Your task to perform on an android device: Open Chrome and go to settings Image 0: 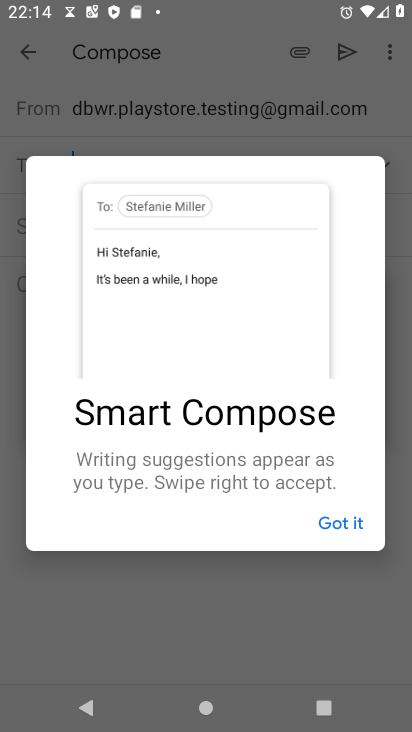
Step 0: press home button
Your task to perform on an android device: Open Chrome and go to settings Image 1: 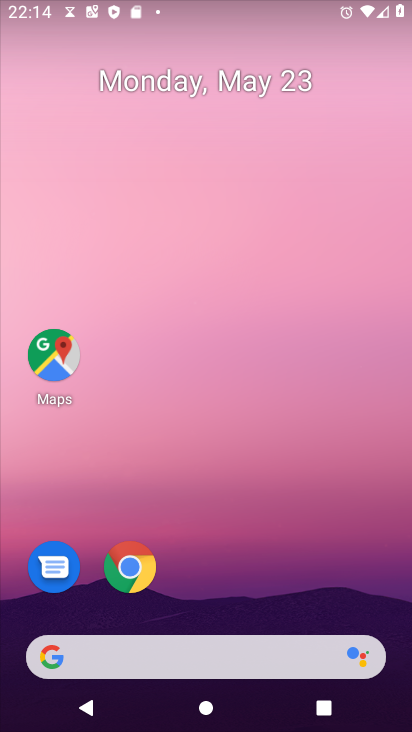
Step 1: drag from (238, 558) to (248, 225)
Your task to perform on an android device: Open Chrome and go to settings Image 2: 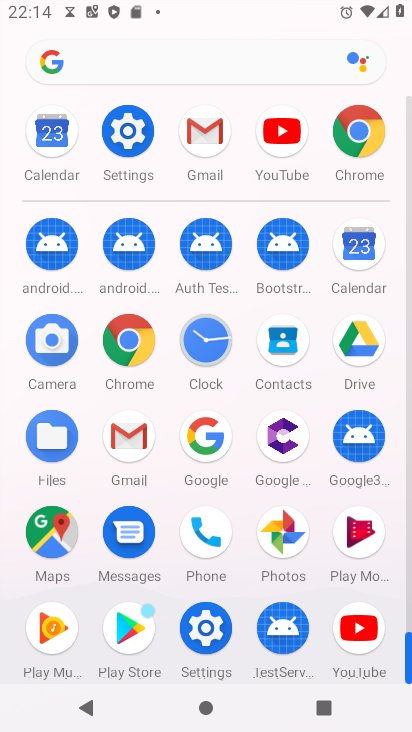
Step 2: click (348, 125)
Your task to perform on an android device: Open Chrome and go to settings Image 3: 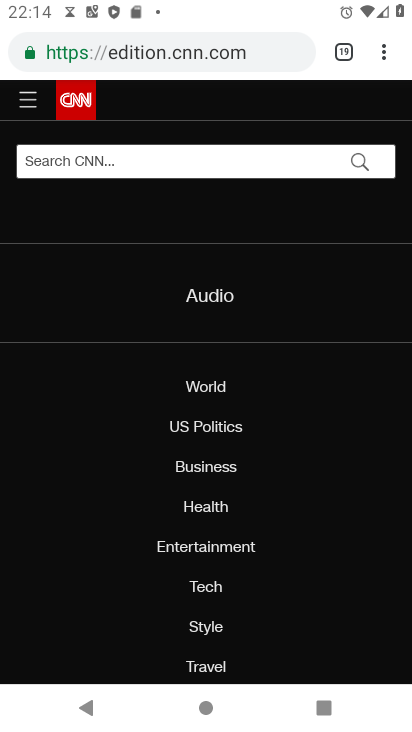
Step 3: click (383, 48)
Your task to perform on an android device: Open Chrome and go to settings Image 4: 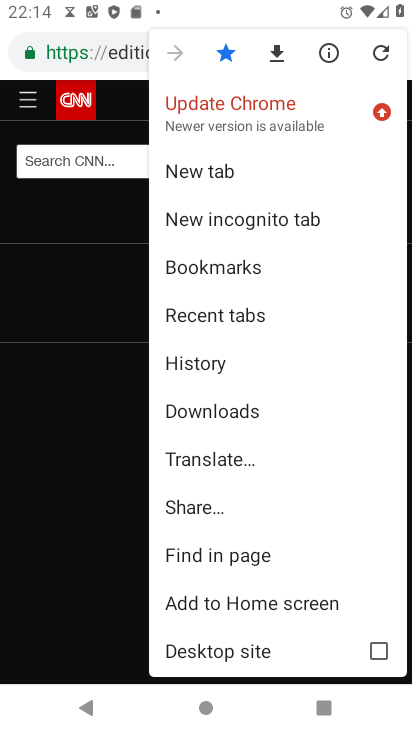
Step 4: drag from (228, 595) to (293, 316)
Your task to perform on an android device: Open Chrome and go to settings Image 5: 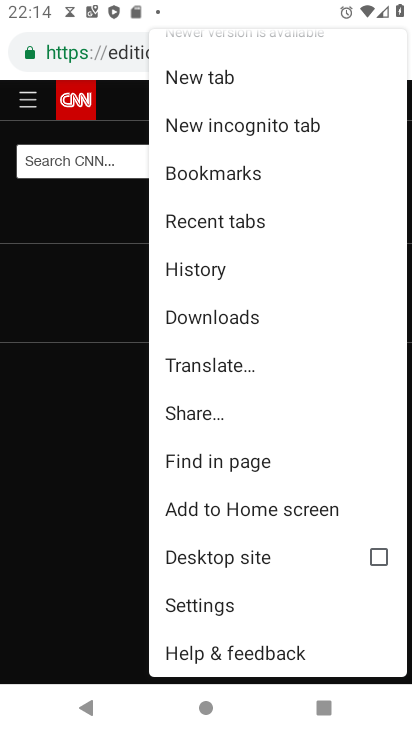
Step 5: click (217, 605)
Your task to perform on an android device: Open Chrome and go to settings Image 6: 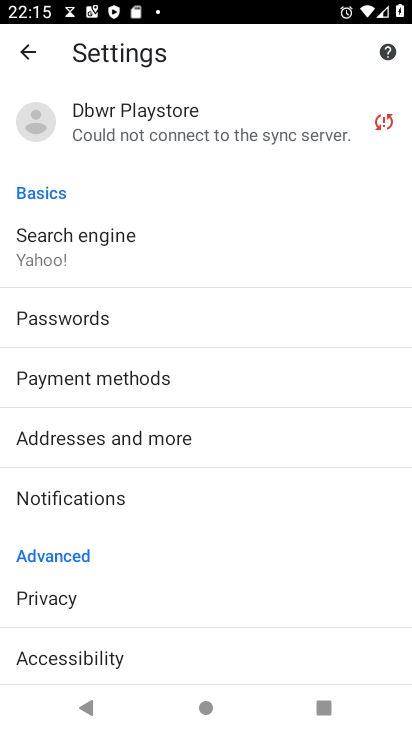
Step 6: task complete